Your task to perform on an android device: What is the capital of England? Image 0: 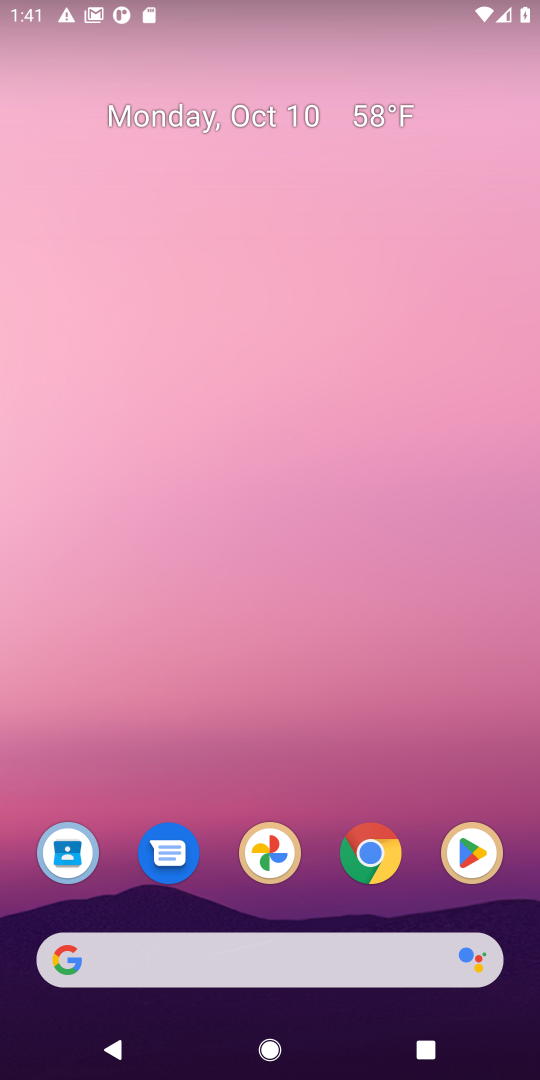
Step 0: click (362, 836)
Your task to perform on an android device: What is the capital of England? Image 1: 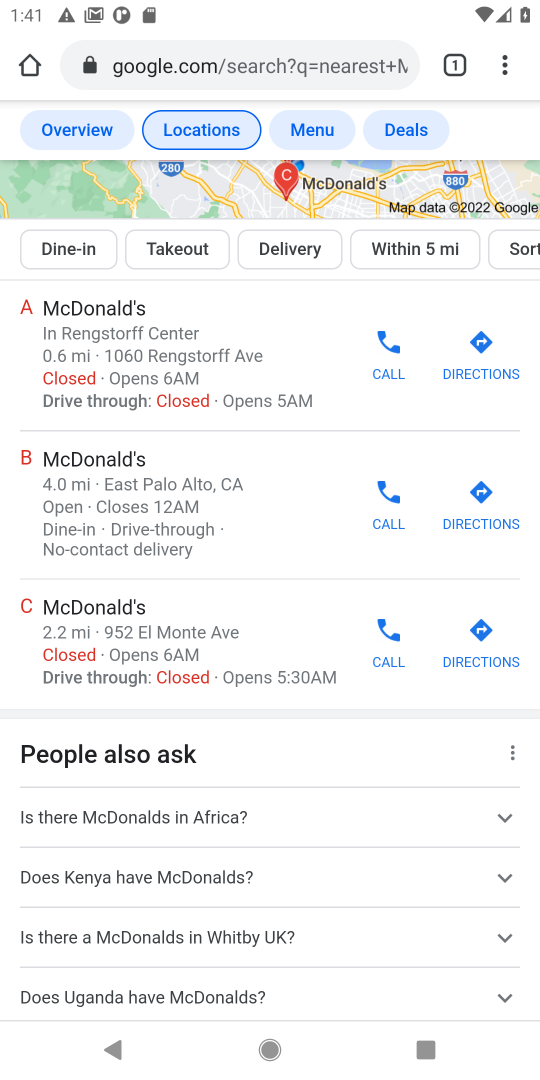
Step 1: click (132, 67)
Your task to perform on an android device: What is the capital of England? Image 2: 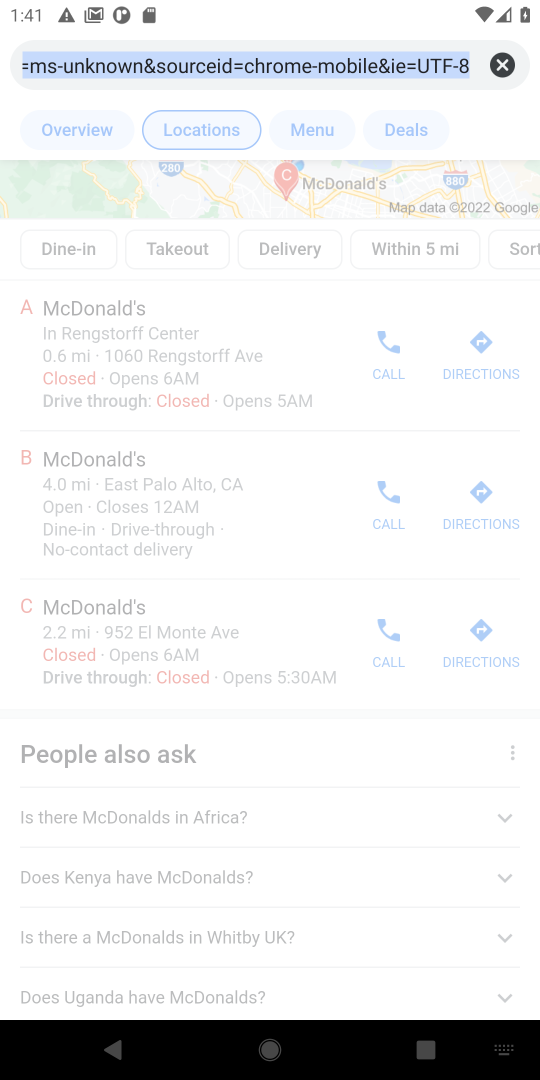
Step 2: type "capital of England"
Your task to perform on an android device: What is the capital of England? Image 3: 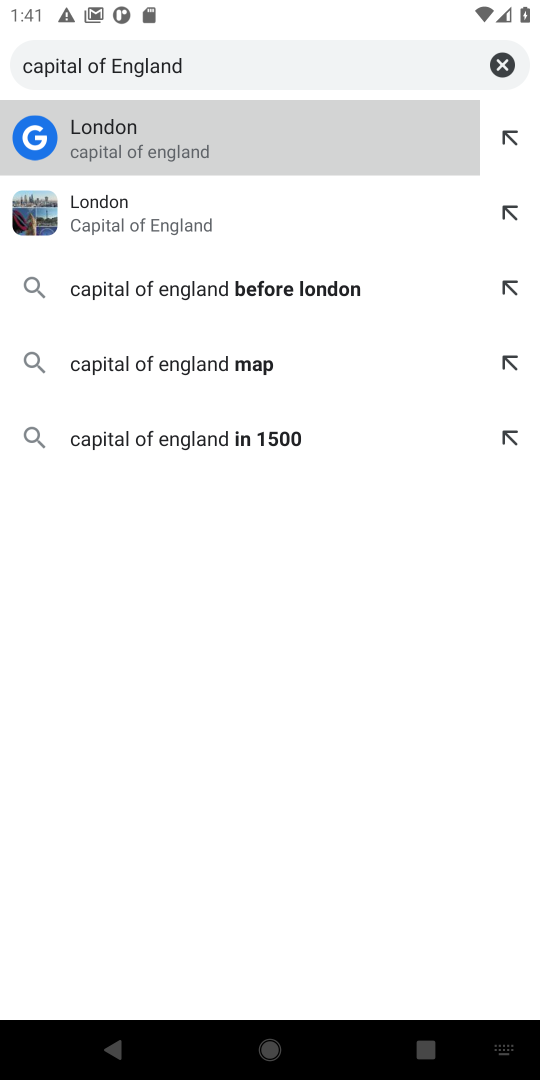
Step 3: type ""
Your task to perform on an android device: What is the capital of England? Image 4: 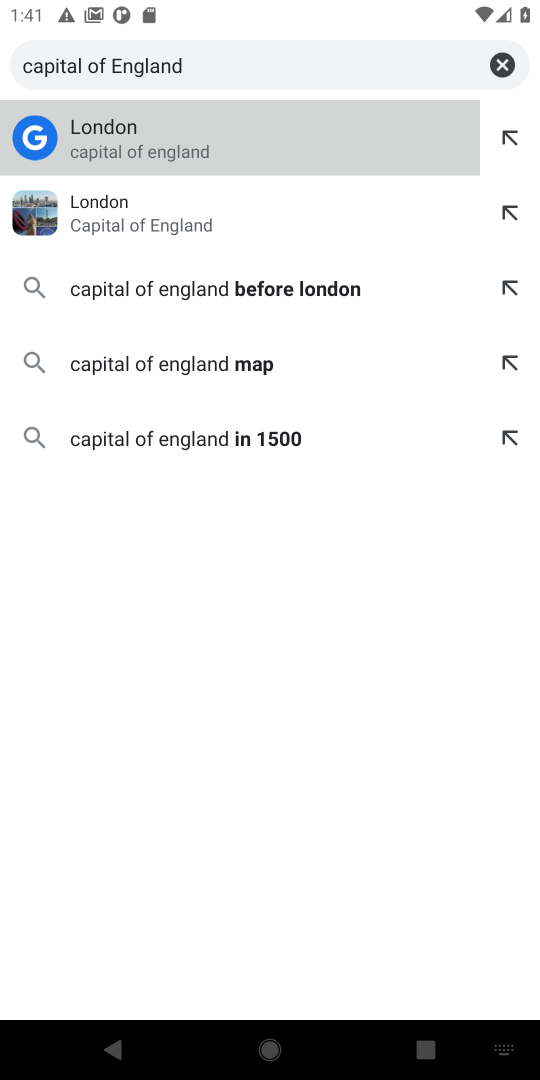
Step 4: press enter
Your task to perform on an android device: What is the capital of England? Image 5: 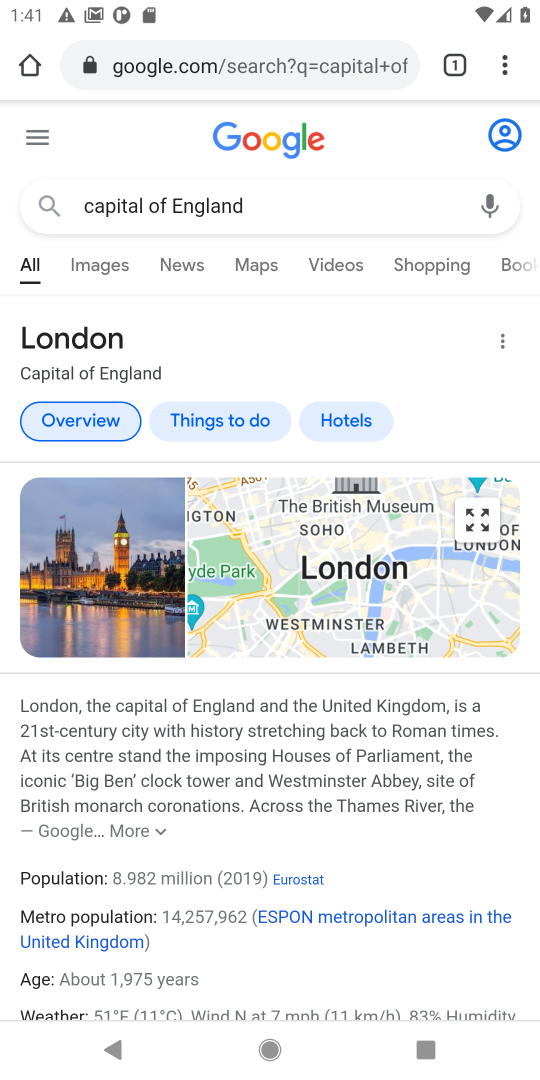
Step 5: task complete